Your task to perform on an android device: Show me the alarms in the clock app Image 0: 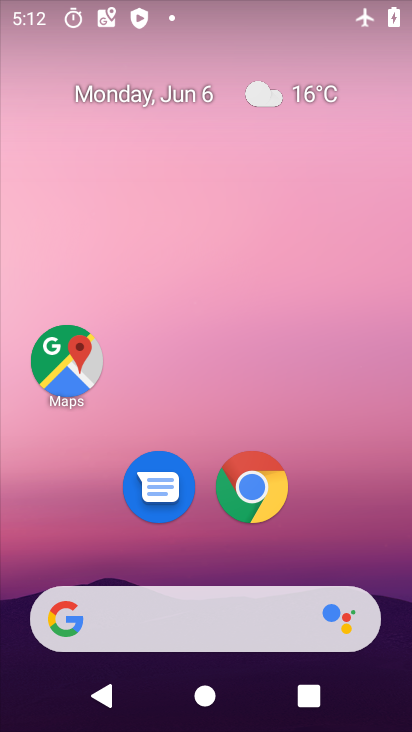
Step 0: drag from (335, 448) to (314, 117)
Your task to perform on an android device: Show me the alarms in the clock app Image 1: 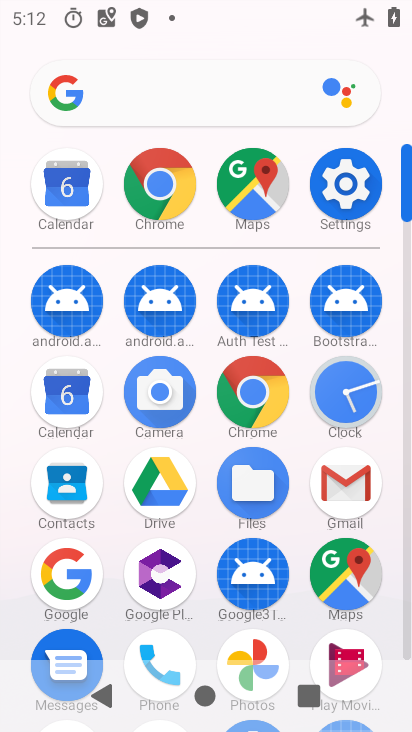
Step 1: click (354, 405)
Your task to perform on an android device: Show me the alarms in the clock app Image 2: 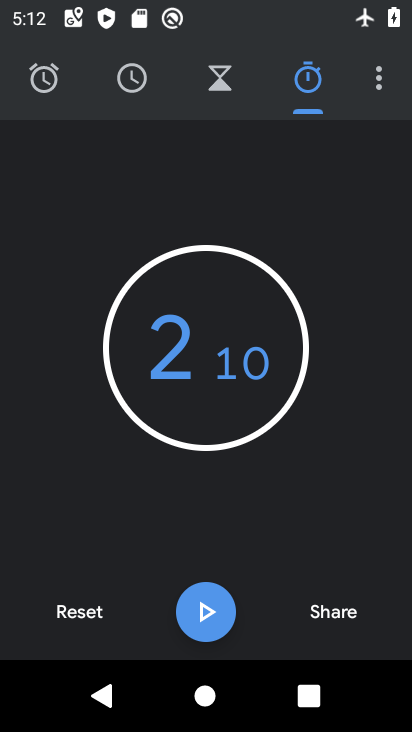
Step 2: click (53, 86)
Your task to perform on an android device: Show me the alarms in the clock app Image 3: 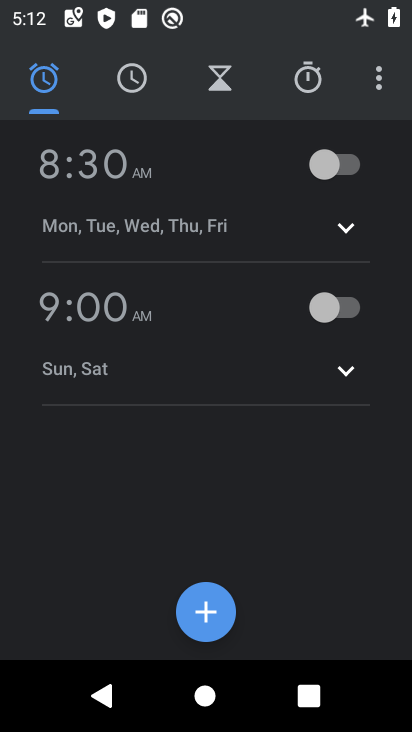
Step 3: task complete